Your task to perform on an android device: What's on my calendar tomorrow? Image 0: 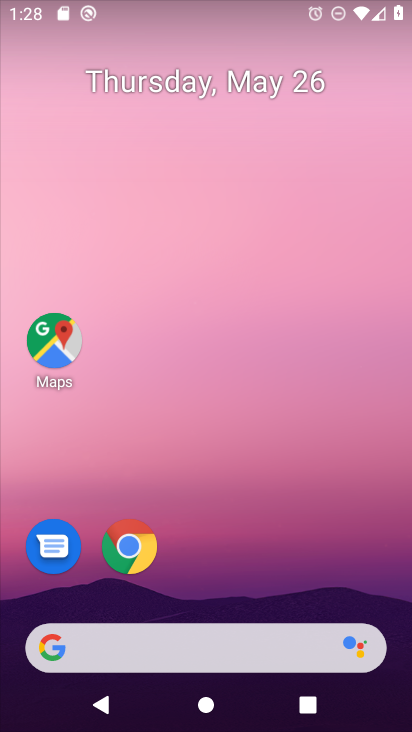
Step 0: drag from (160, 624) to (190, 118)
Your task to perform on an android device: What's on my calendar tomorrow? Image 1: 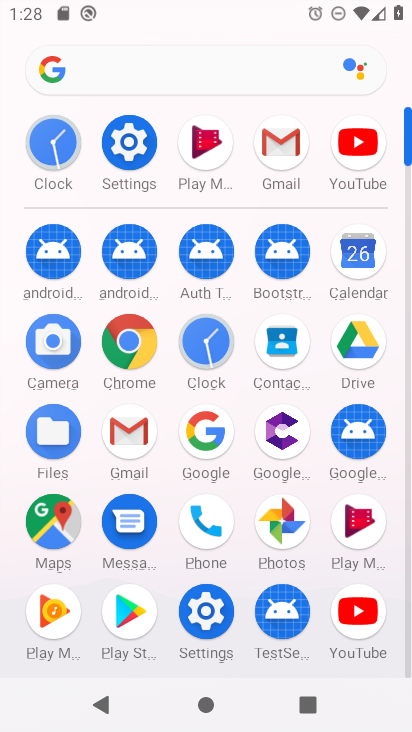
Step 1: click (358, 251)
Your task to perform on an android device: What's on my calendar tomorrow? Image 2: 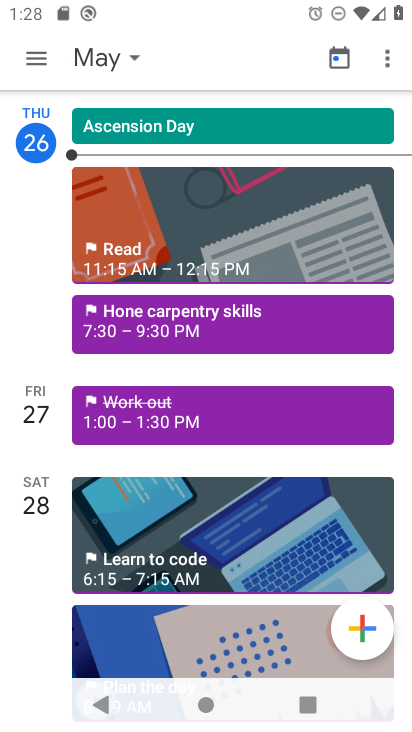
Step 2: click (126, 67)
Your task to perform on an android device: What's on my calendar tomorrow? Image 3: 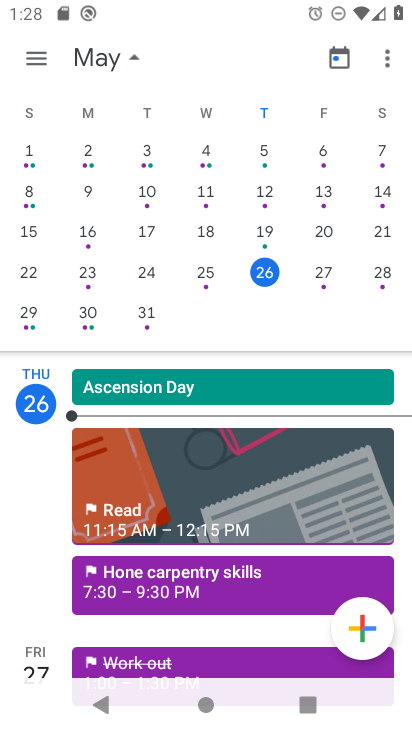
Step 3: click (321, 268)
Your task to perform on an android device: What's on my calendar tomorrow? Image 4: 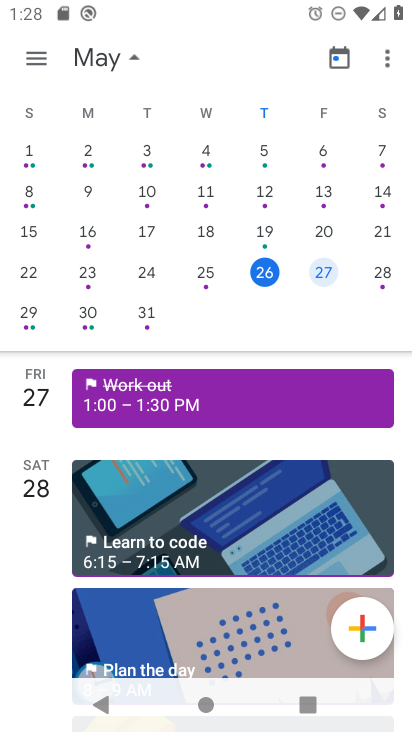
Step 4: click (148, 392)
Your task to perform on an android device: What's on my calendar tomorrow? Image 5: 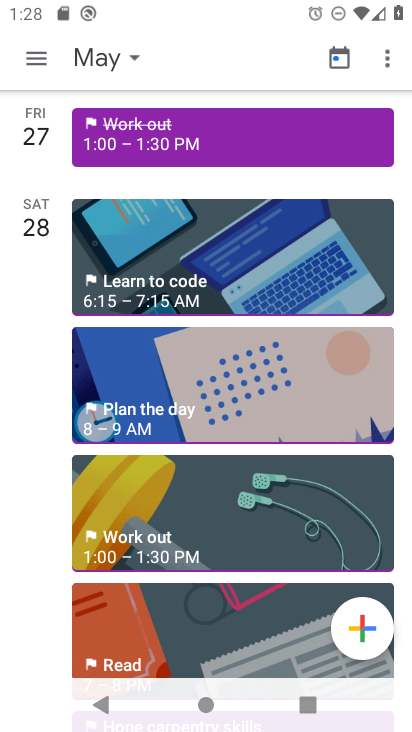
Step 5: click (144, 142)
Your task to perform on an android device: What's on my calendar tomorrow? Image 6: 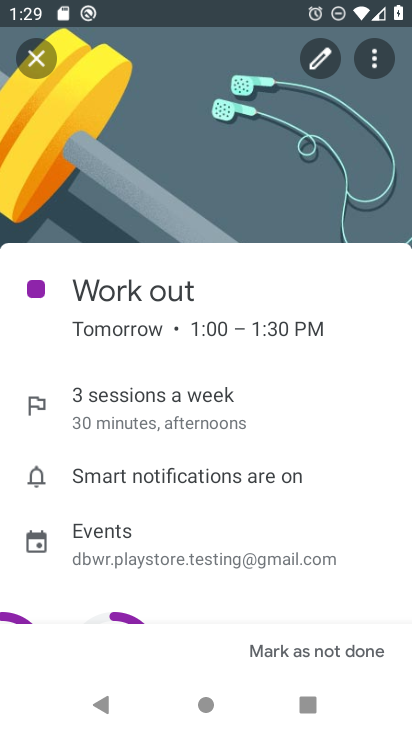
Step 6: task complete